Your task to perform on an android device: check data usage Image 0: 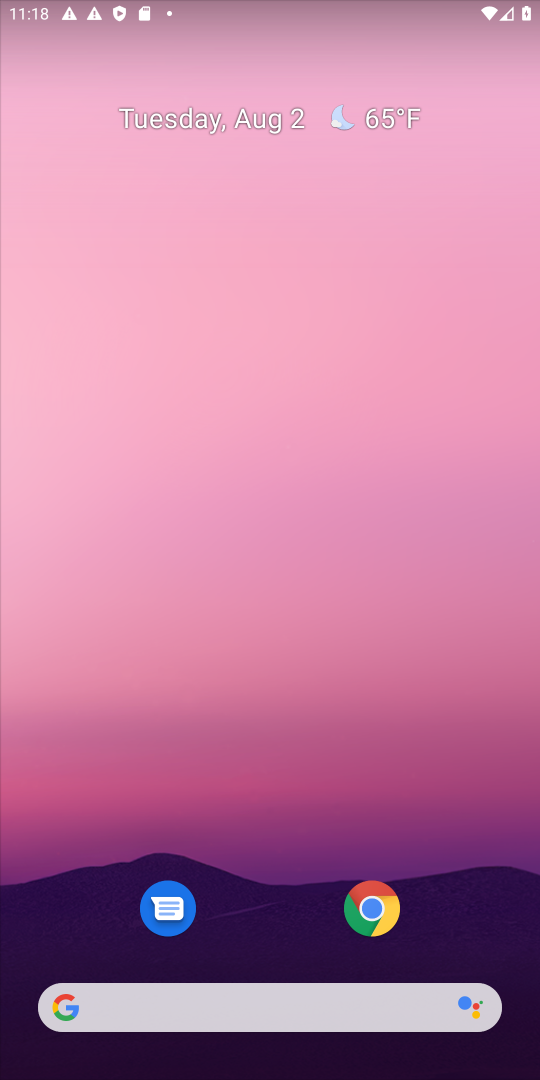
Step 0: drag from (279, 957) to (297, 246)
Your task to perform on an android device: check data usage Image 1: 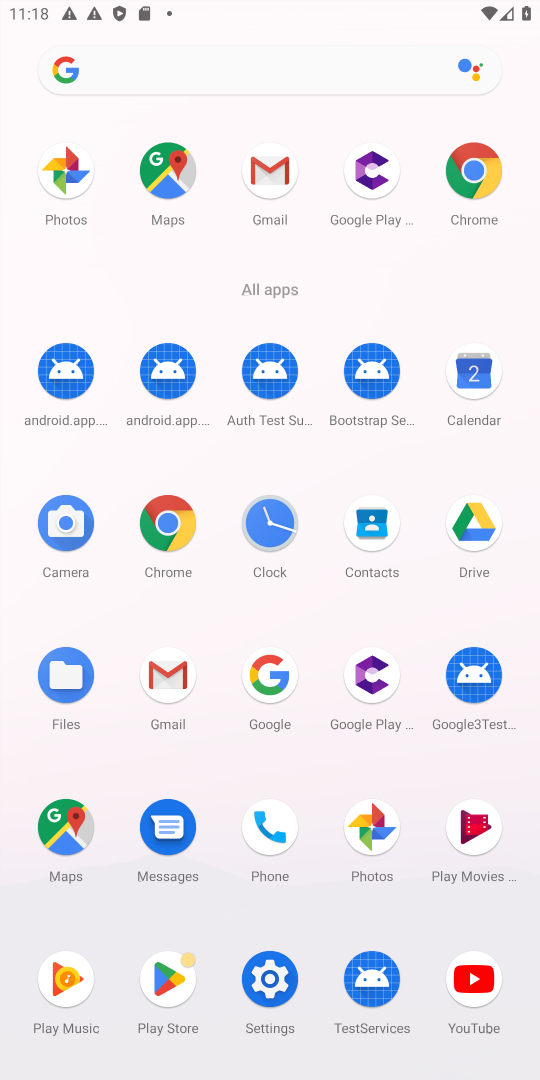
Step 1: click (269, 960)
Your task to perform on an android device: check data usage Image 2: 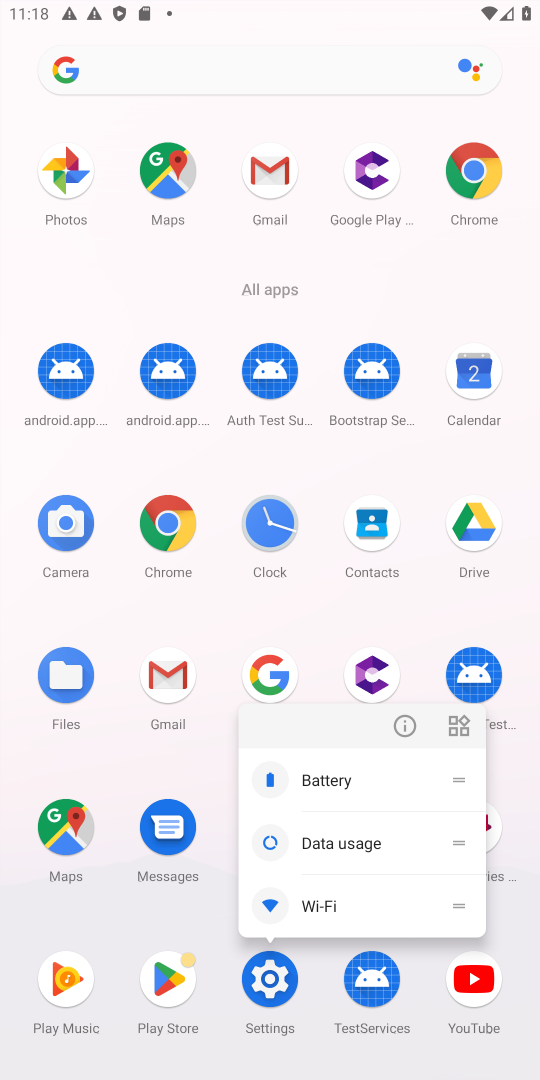
Step 2: click (262, 975)
Your task to perform on an android device: check data usage Image 3: 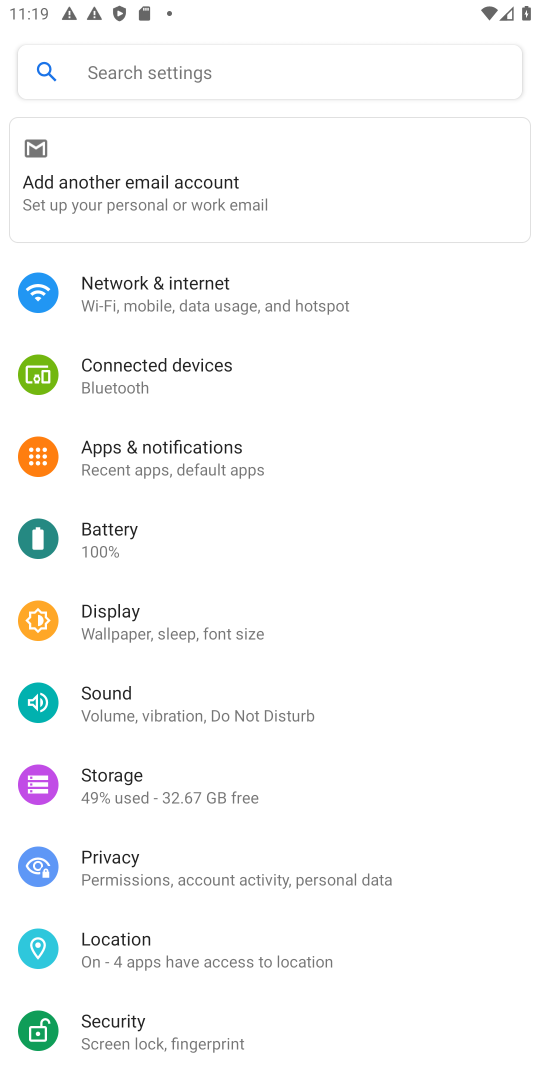
Step 3: click (184, 296)
Your task to perform on an android device: check data usage Image 4: 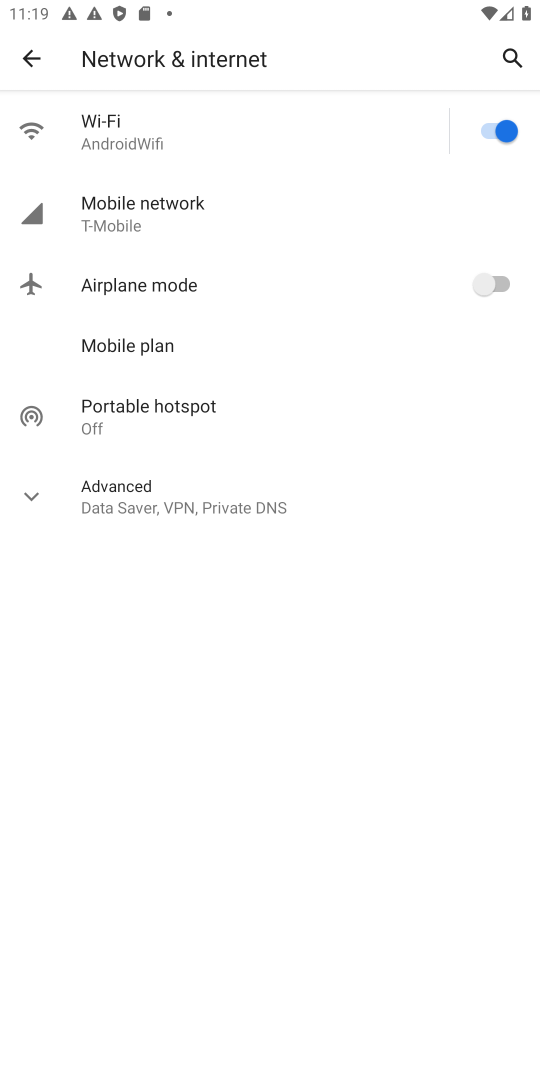
Step 4: click (173, 215)
Your task to perform on an android device: check data usage Image 5: 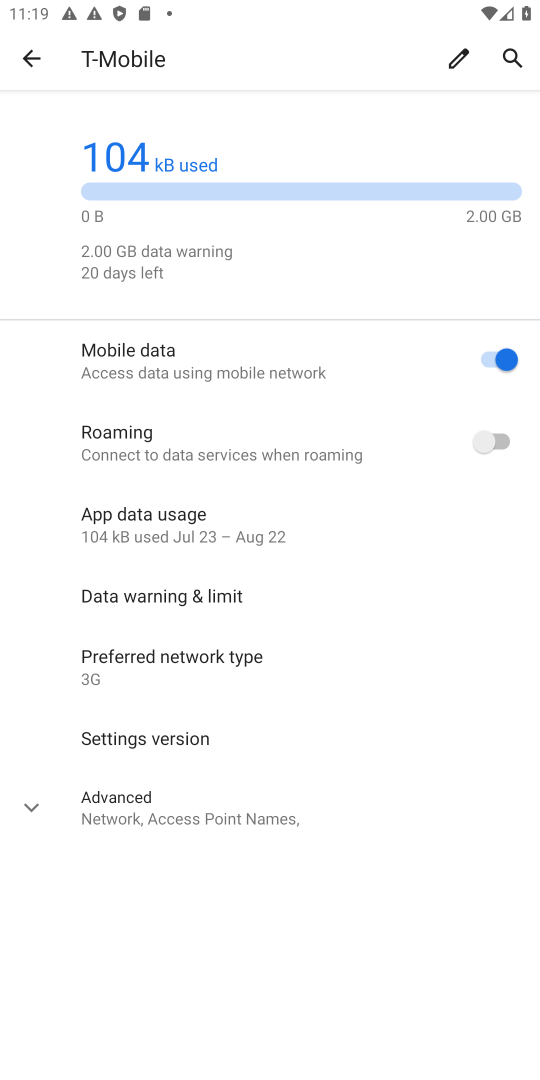
Step 5: click (219, 508)
Your task to perform on an android device: check data usage Image 6: 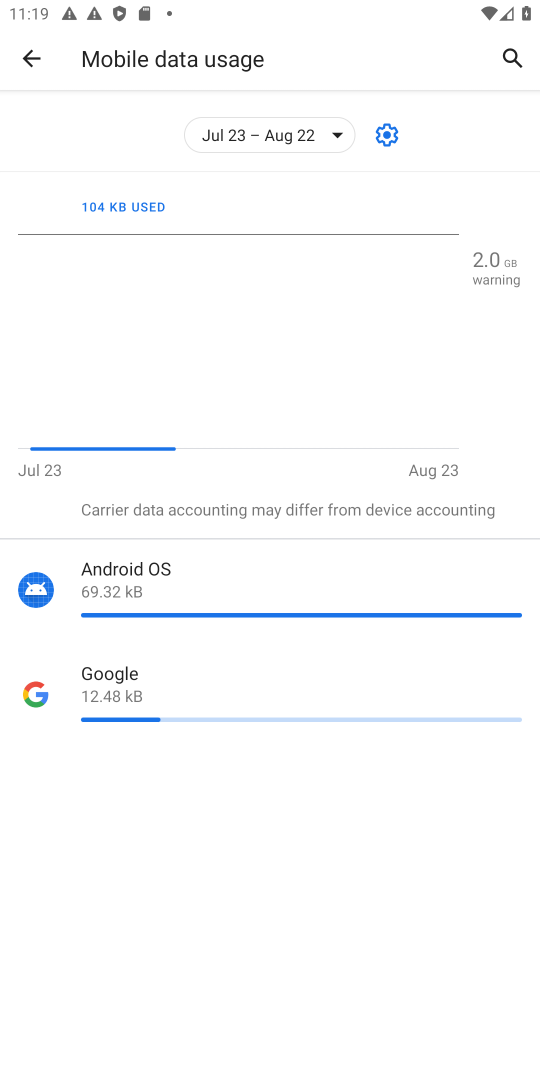
Step 6: task complete